Your task to perform on an android device: add a contact Image 0: 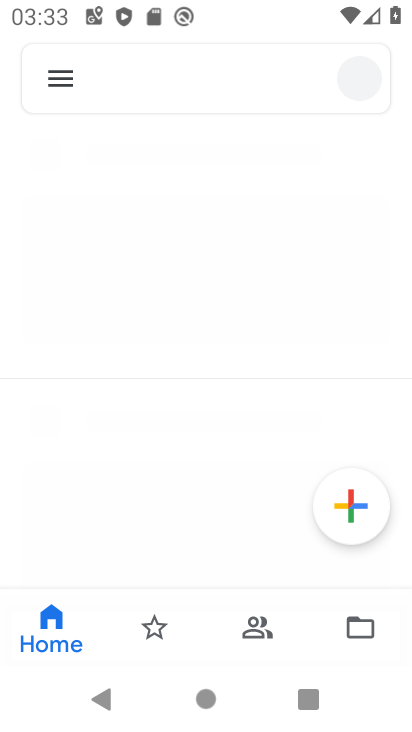
Step 0: click (174, 74)
Your task to perform on an android device: add a contact Image 1: 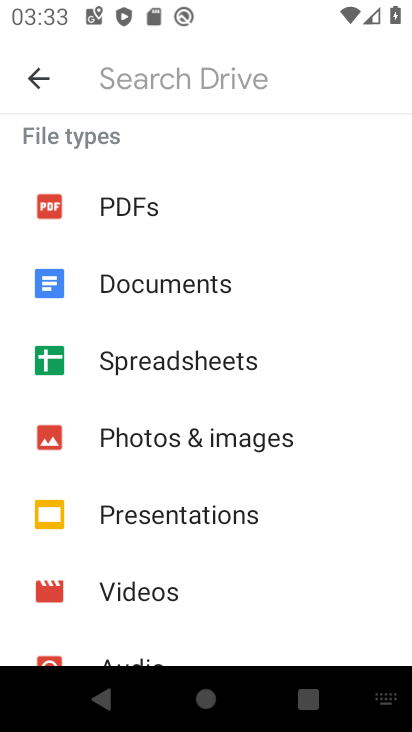
Step 1: press home button
Your task to perform on an android device: add a contact Image 2: 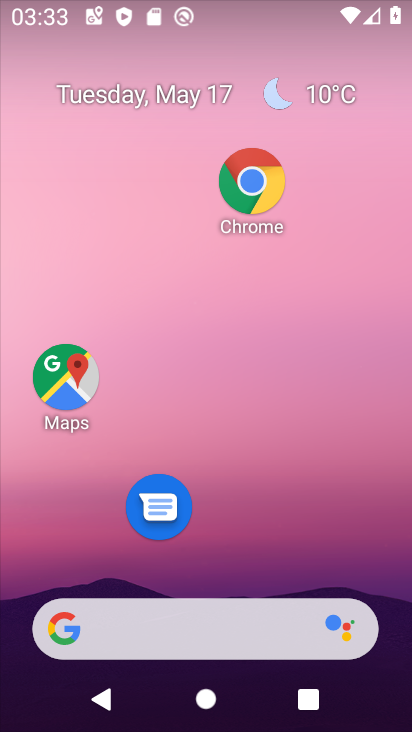
Step 2: drag from (268, 539) to (252, 57)
Your task to perform on an android device: add a contact Image 3: 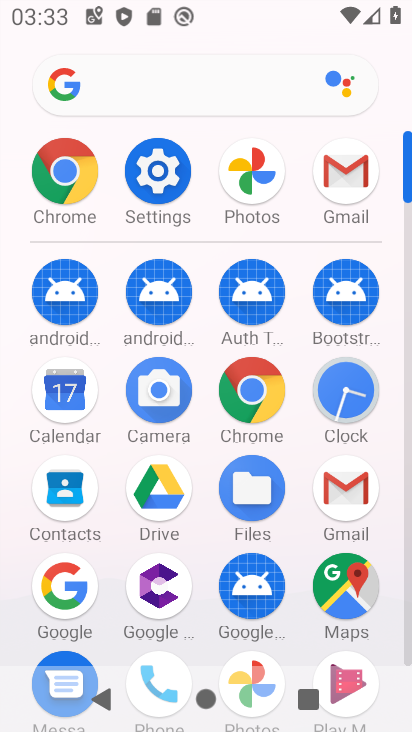
Step 3: drag from (206, 638) to (238, 263)
Your task to perform on an android device: add a contact Image 4: 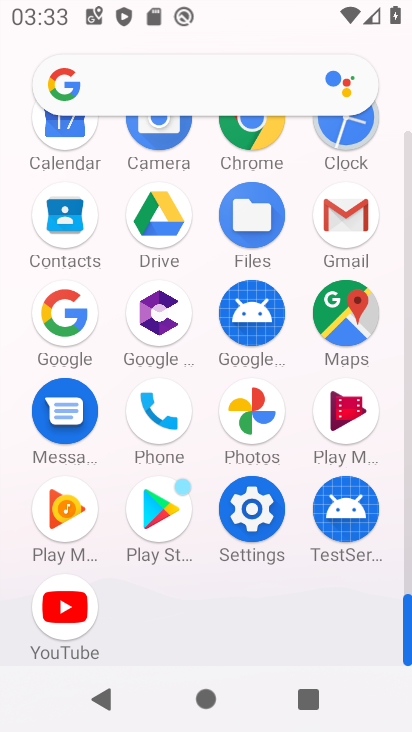
Step 4: click (62, 240)
Your task to perform on an android device: add a contact Image 5: 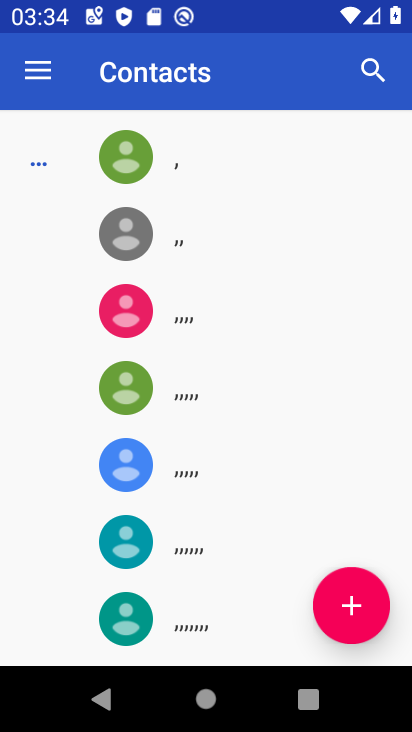
Step 5: click (354, 610)
Your task to perform on an android device: add a contact Image 6: 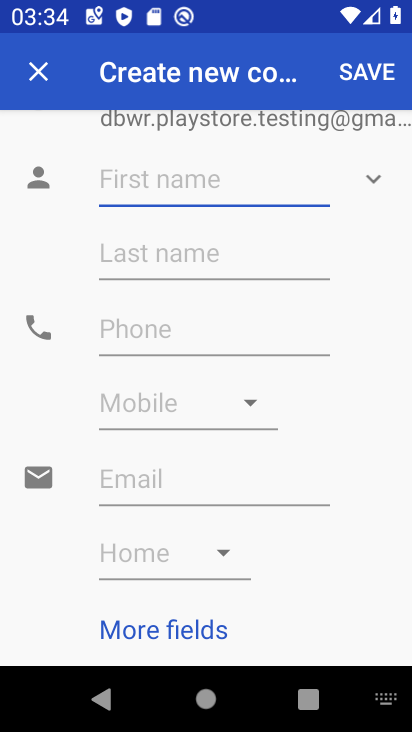
Step 6: type ",,,,,,"
Your task to perform on an android device: add a contact Image 7: 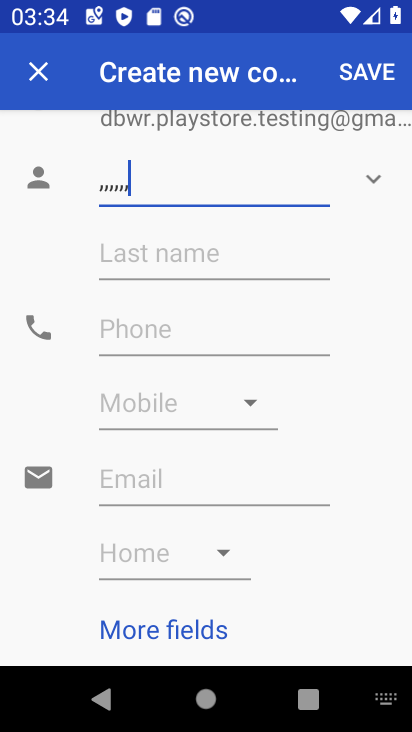
Step 7: click (135, 354)
Your task to perform on an android device: add a contact Image 8: 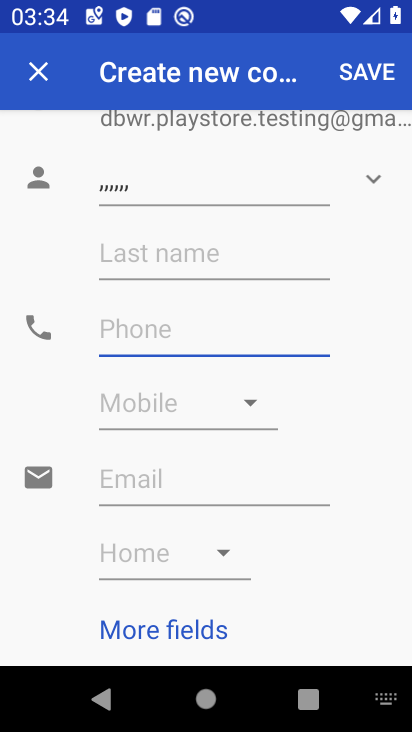
Step 8: type "09876543"
Your task to perform on an android device: add a contact Image 9: 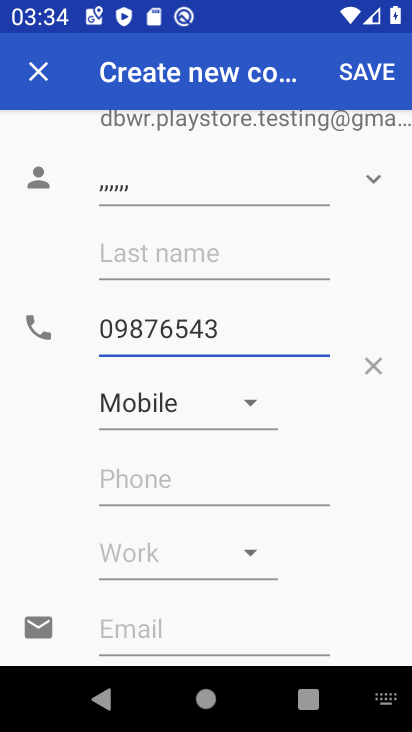
Step 9: click (390, 80)
Your task to perform on an android device: add a contact Image 10: 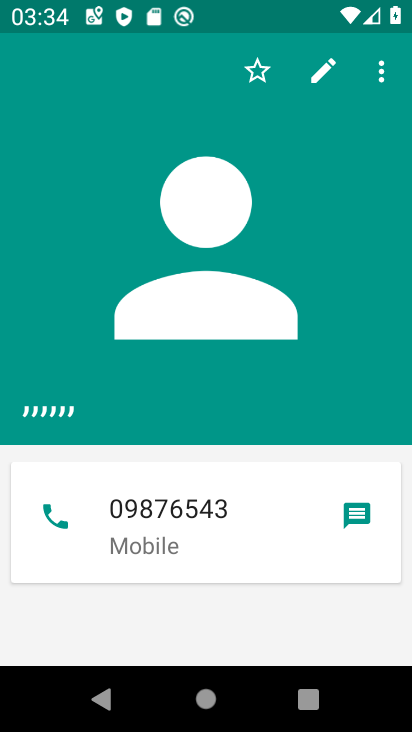
Step 10: task complete